Your task to perform on an android device: Go to battery settings Image 0: 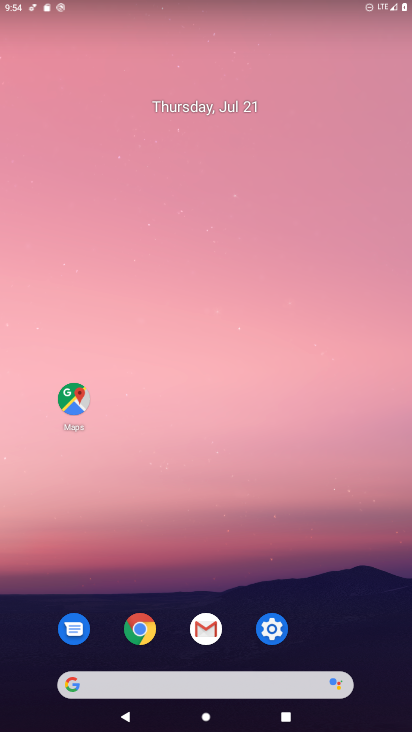
Step 0: click (264, 624)
Your task to perform on an android device: Go to battery settings Image 1: 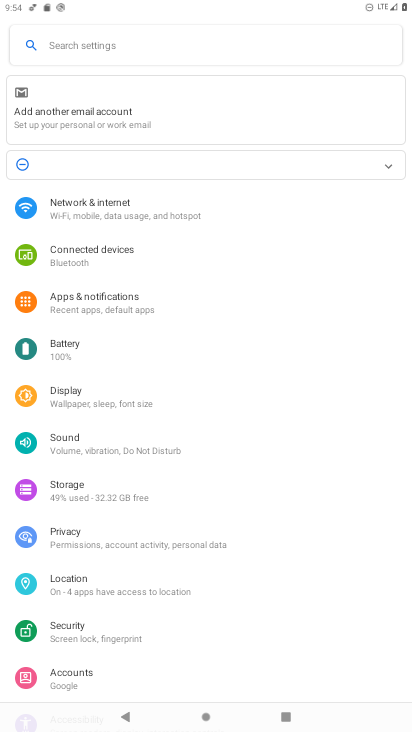
Step 1: click (92, 348)
Your task to perform on an android device: Go to battery settings Image 2: 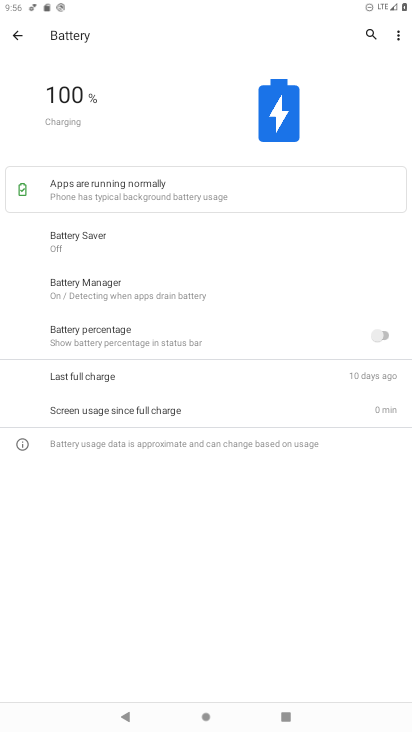
Step 2: task complete